Your task to perform on an android device: Open Google Image 0: 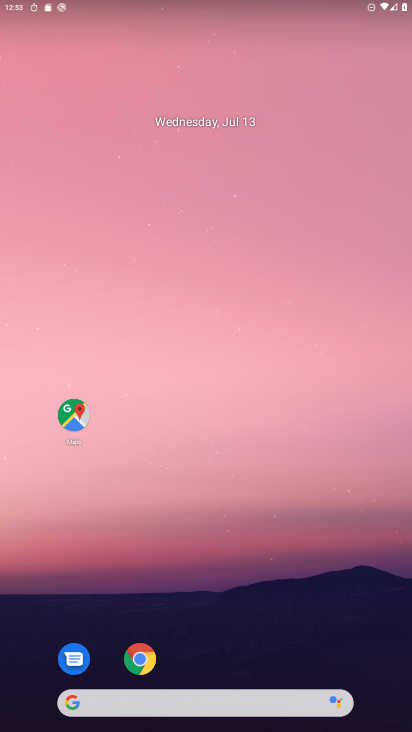
Step 0: drag from (288, 698) to (364, 95)
Your task to perform on an android device: Open Google Image 1: 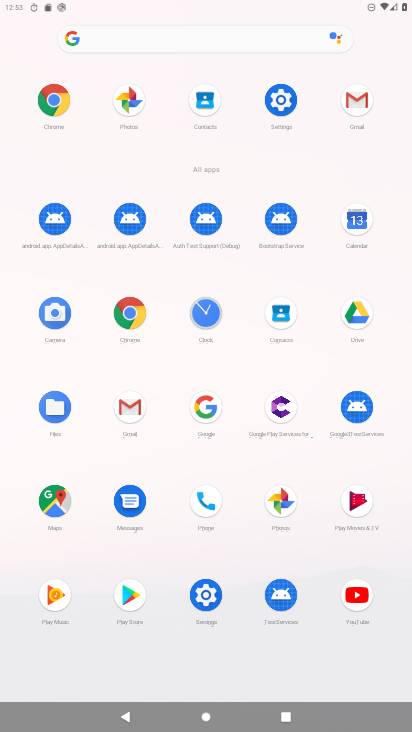
Step 1: click (138, 314)
Your task to perform on an android device: Open Google Image 2: 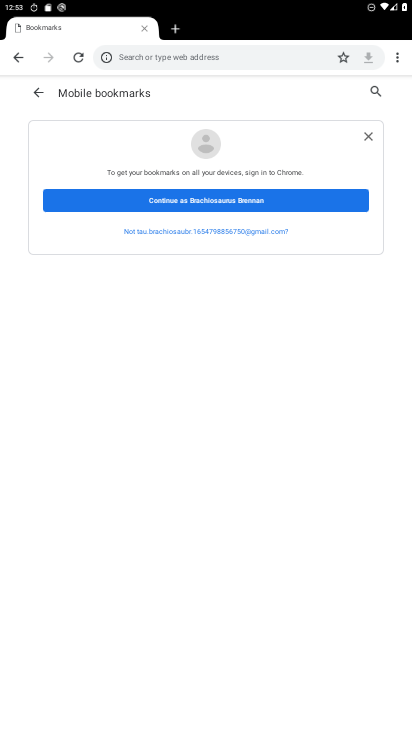
Step 2: task complete